Your task to perform on an android device: Do I have any events tomorrow? Image 0: 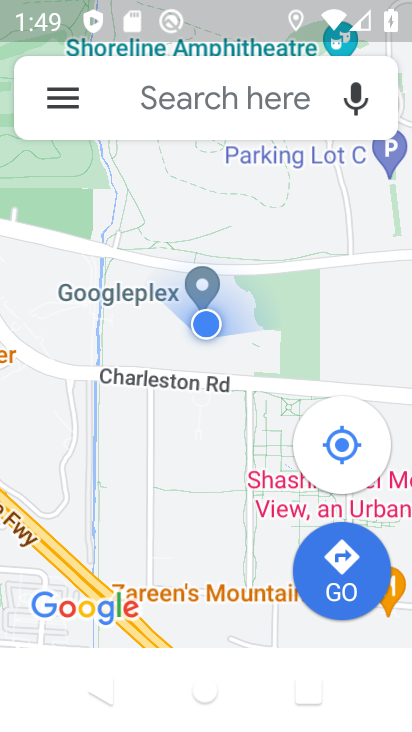
Step 0: press home button
Your task to perform on an android device: Do I have any events tomorrow? Image 1: 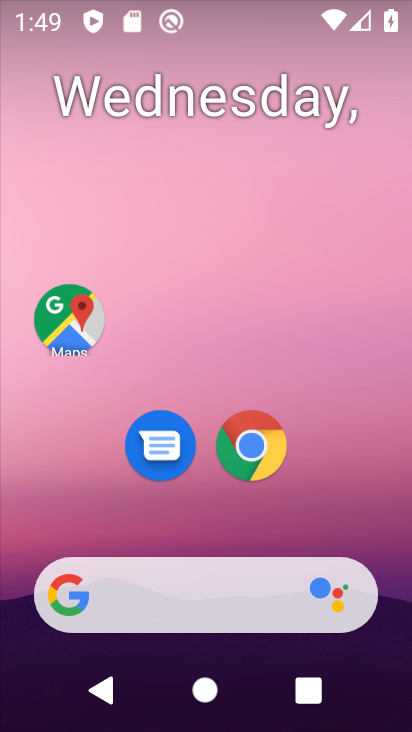
Step 1: drag from (188, 542) to (183, 125)
Your task to perform on an android device: Do I have any events tomorrow? Image 2: 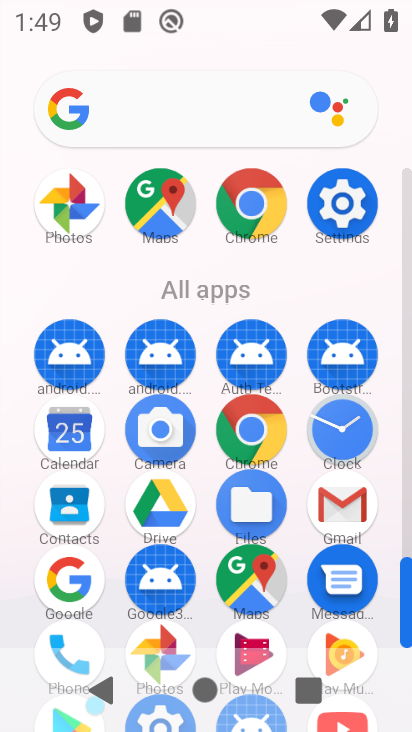
Step 2: drag from (197, 494) to (222, 305)
Your task to perform on an android device: Do I have any events tomorrow? Image 3: 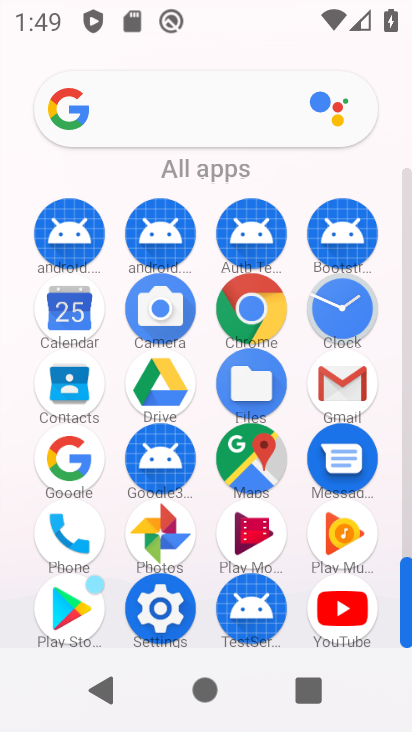
Step 3: click (67, 307)
Your task to perform on an android device: Do I have any events tomorrow? Image 4: 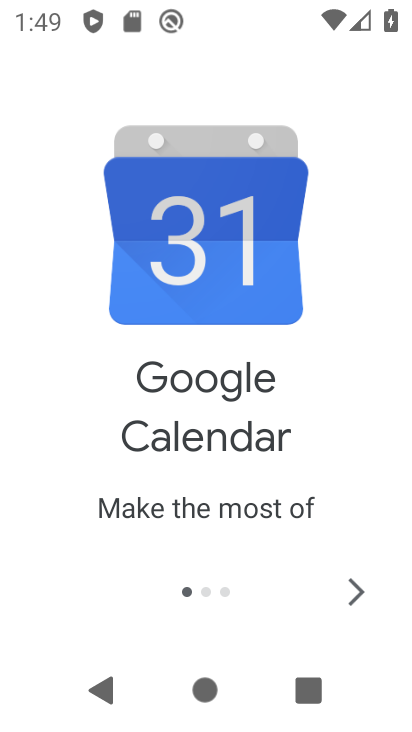
Step 4: click (342, 594)
Your task to perform on an android device: Do I have any events tomorrow? Image 5: 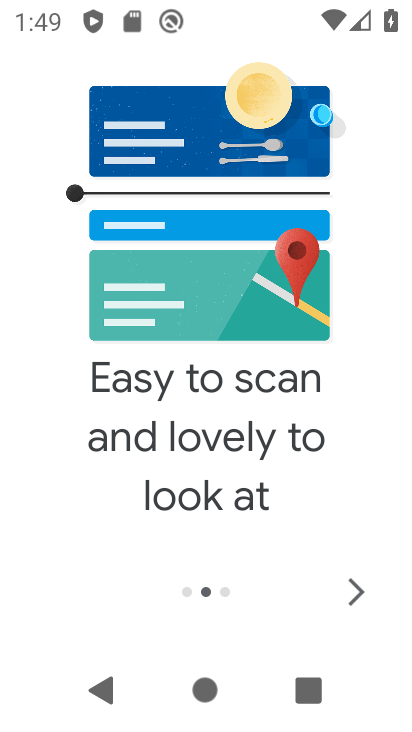
Step 5: click (342, 594)
Your task to perform on an android device: Do I have any events tomorrow? Image 6: 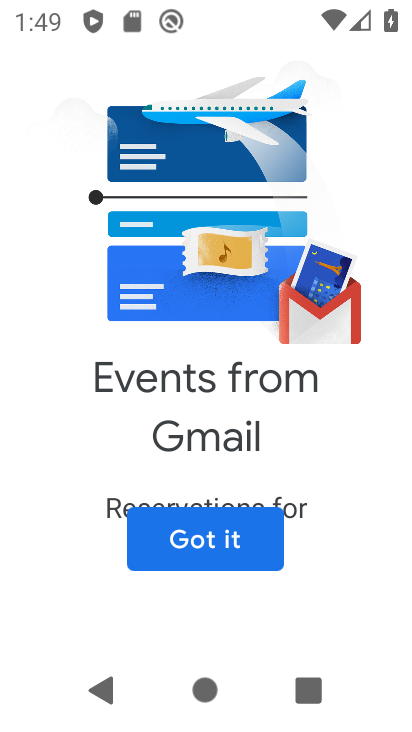
Step 6: click (263, 552)
Your task to perform on an android device: Do I have any events tomorrow? Image 7: 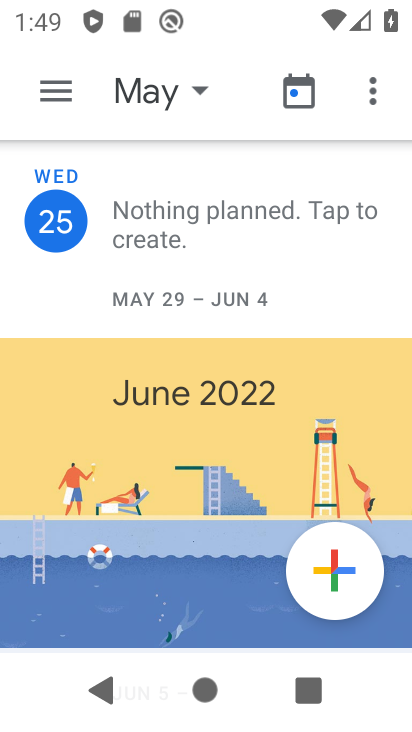
Step 7: click (185, 99)
Your task to perform on an android device: Do I have any events tomorrow? Image 8: 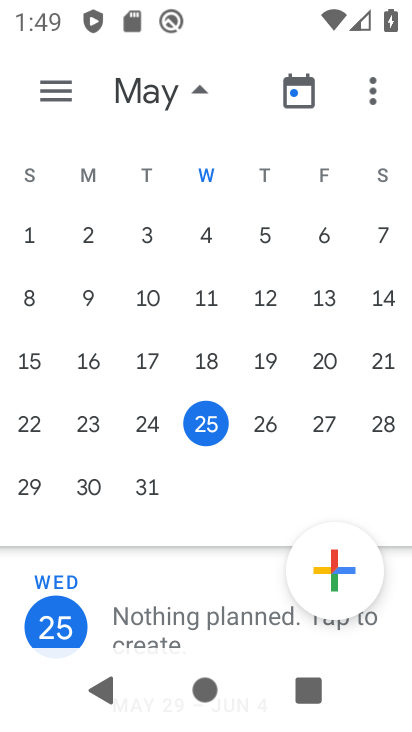
Step 8: click (248, 407)
Your task to perform on an android device: Do I have any events tomorrow? Image 9: 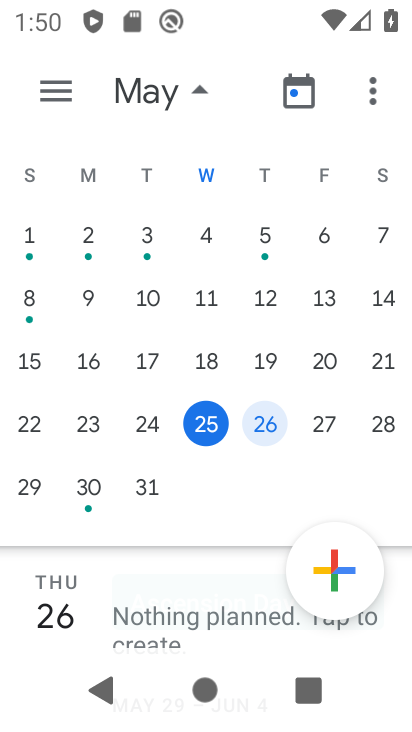
Step 9: click (251, 414)
Your task to perform on an android device: Do I have any events tomorrow? Image 10: 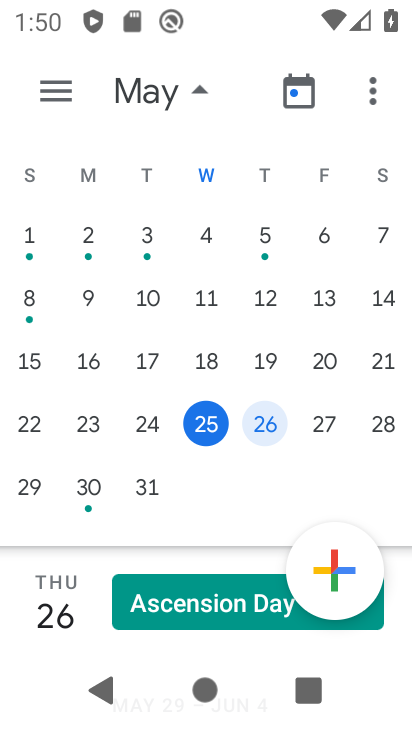
Step 10: click (266, 419)
Your task to perform on an android device: Do I have any events tomorrow? Image 11: 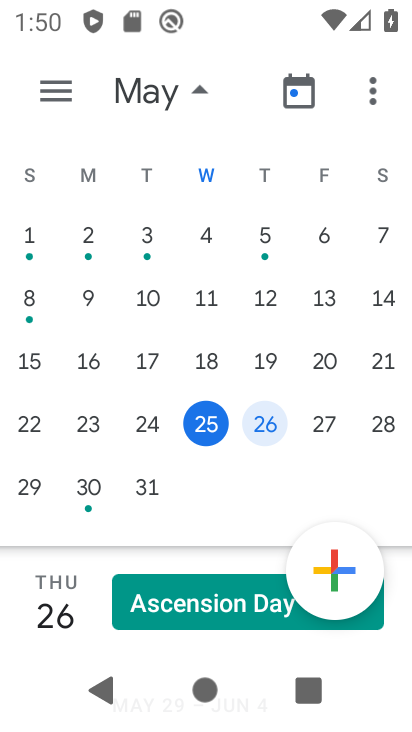
Step 11: task complete